Your task to perform on an android device: Open notification settings Image 0: 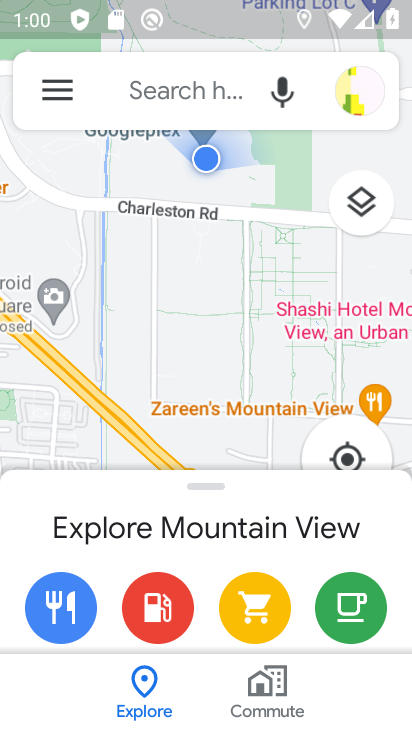
Step 0: press home button
Your task to perform on an android device: Open notification settings Image 1: 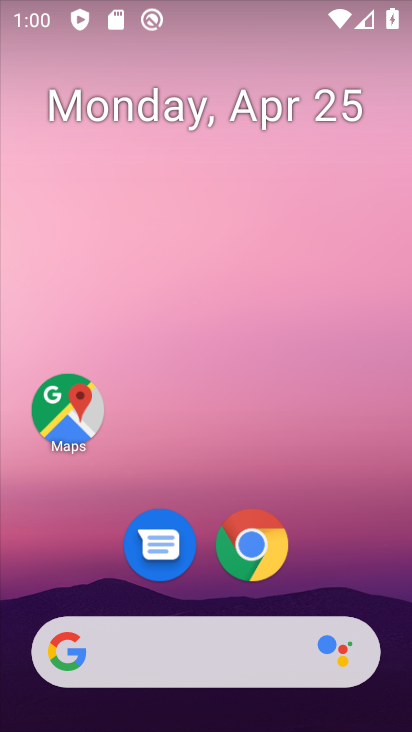
Step 1: drag from (315, 87) to (310, 31)
Your task to perform on an android device: Open notification settings Image 2: 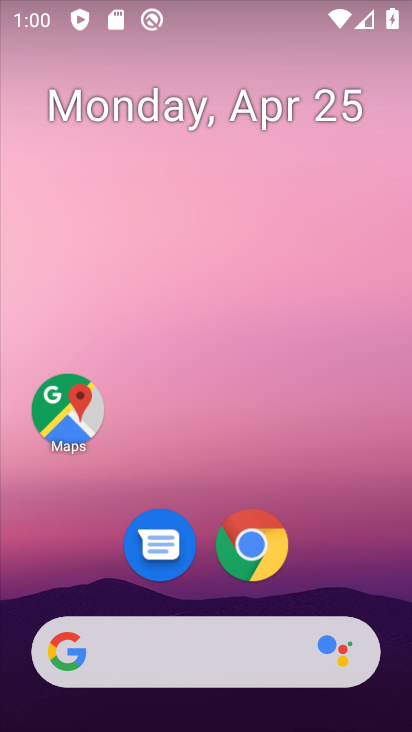
Step 2: drag from (340, 571) to (291, 38)
Your task to perform on an android device: Open notification settings Image 3: 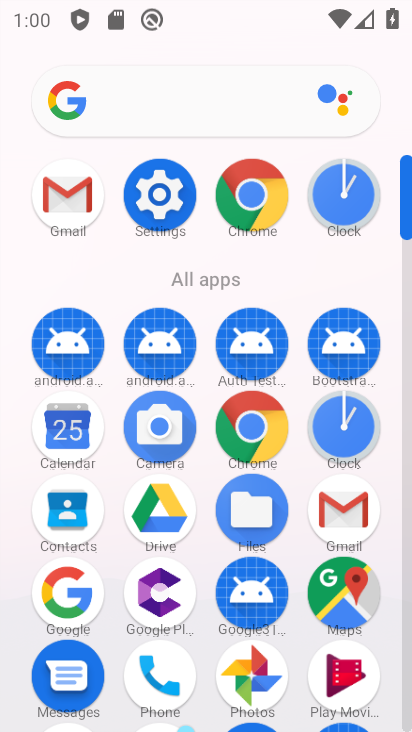
Step 3: click (156, 191)
Your task to perform on an android device: Open notification settings Image 4: 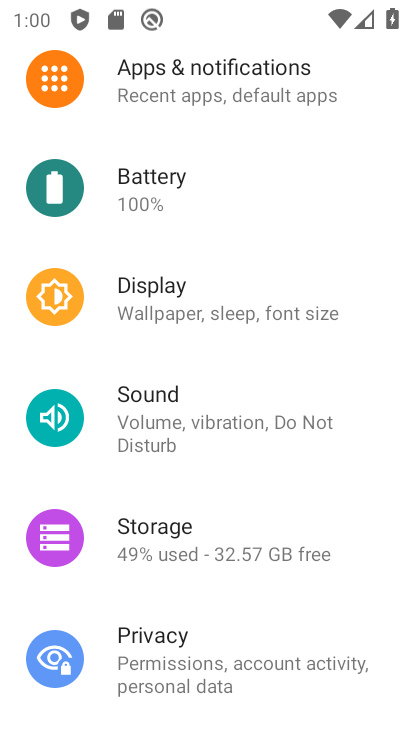
Step 4: click (223, 98)
Your task to perform on an android device: Open notification settings Image 5: 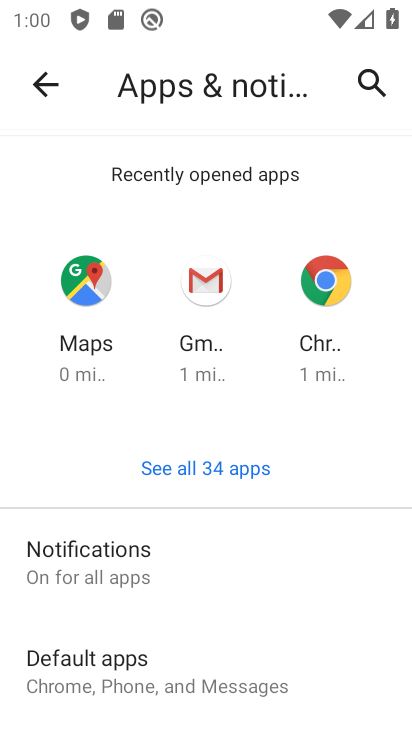
Step 5: task complete